Your task to perform on an android device: Check the news Image 0: 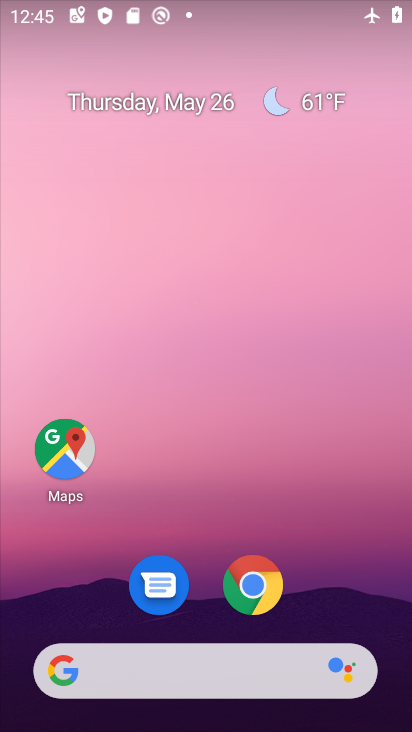
Step 0: click (252, 678)
Your task to perform on an android device: Check the news Image 1: 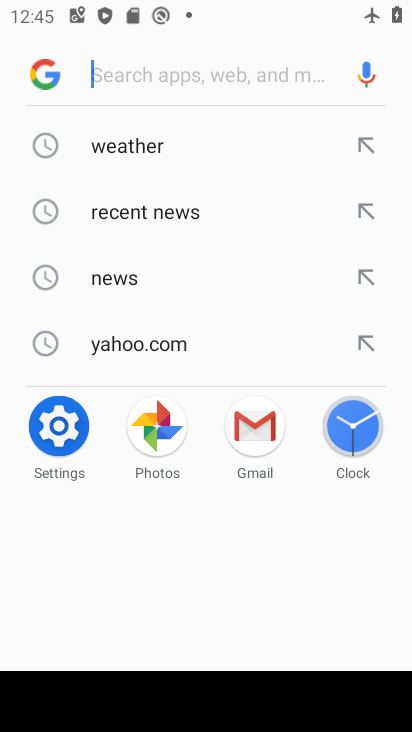
Step 1: click (111, 267)
Your task to perform on an android device: Check the news Image 2: 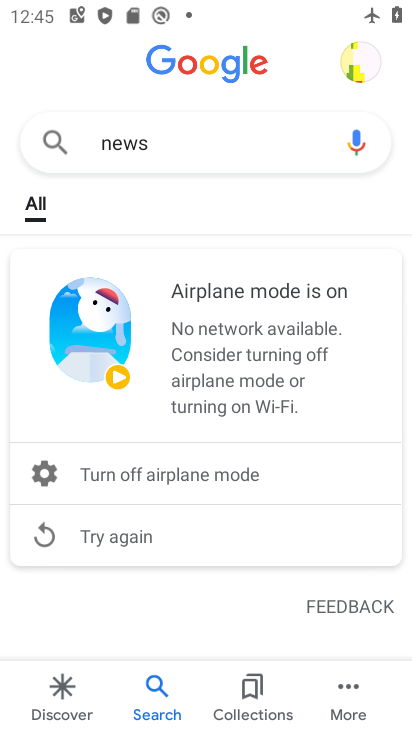
Step 2: task complete